Your task to perform on an android device: Add "dell xps" to the cart on bestbuy.com Image 0: 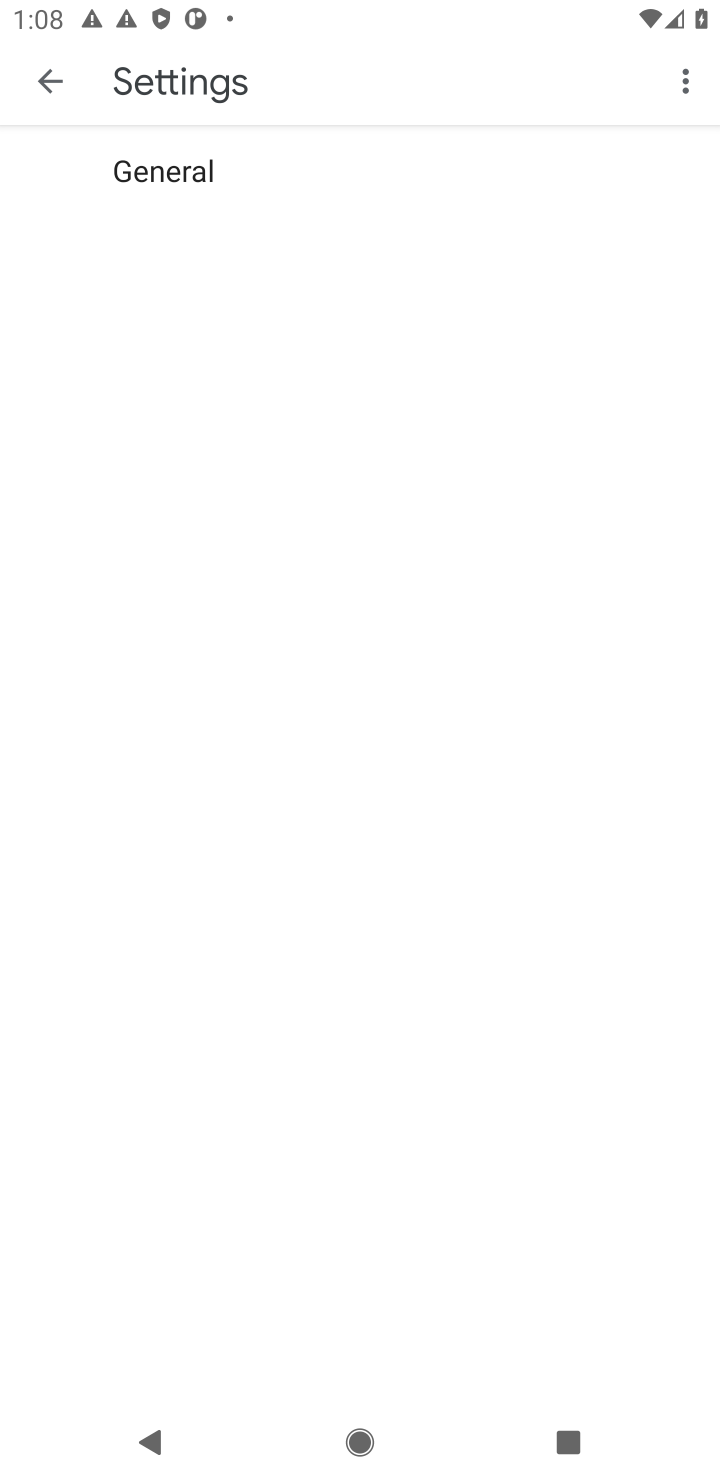
Step 0: press home button
Your task to perform on an android device: Add "dell xps" to the cart on bestbuy.com Image 1: 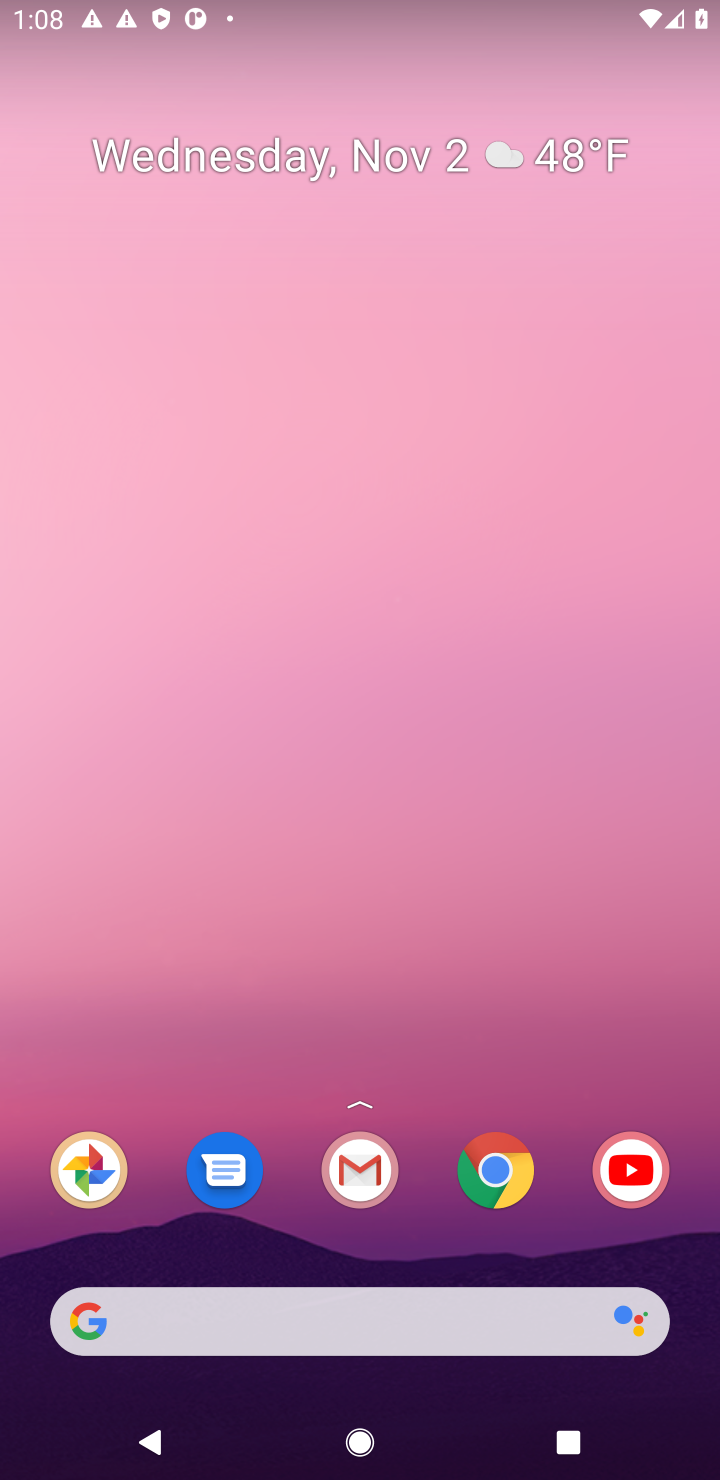
Step 1: drag from (313, 1163) to (359, 410)
Your task to perform on an android device: Add "dell xps" to the cart on bestbuy.com Image 2: 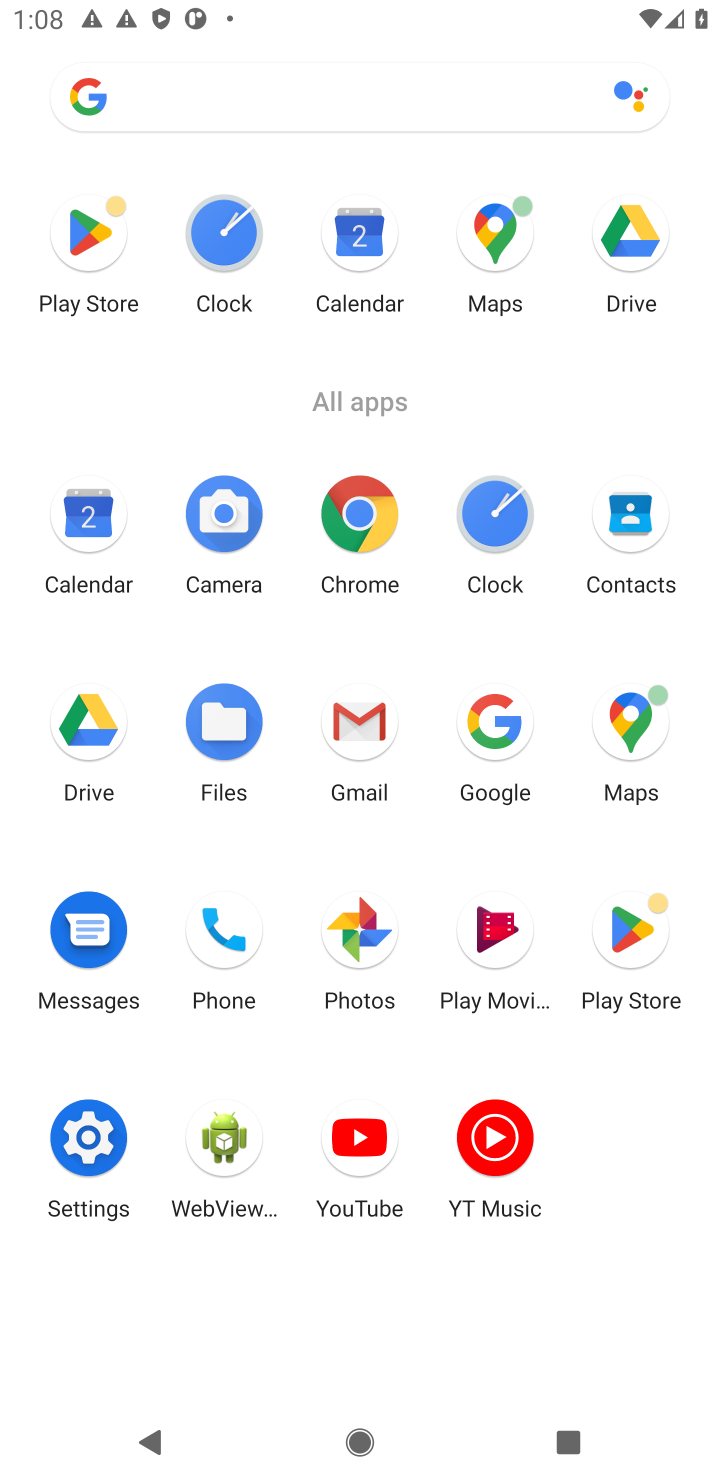
Step 2: click (480, 741)
Your task to perform on an android device: Add "dell xps" to the cart on bestbuy.com Image 3: 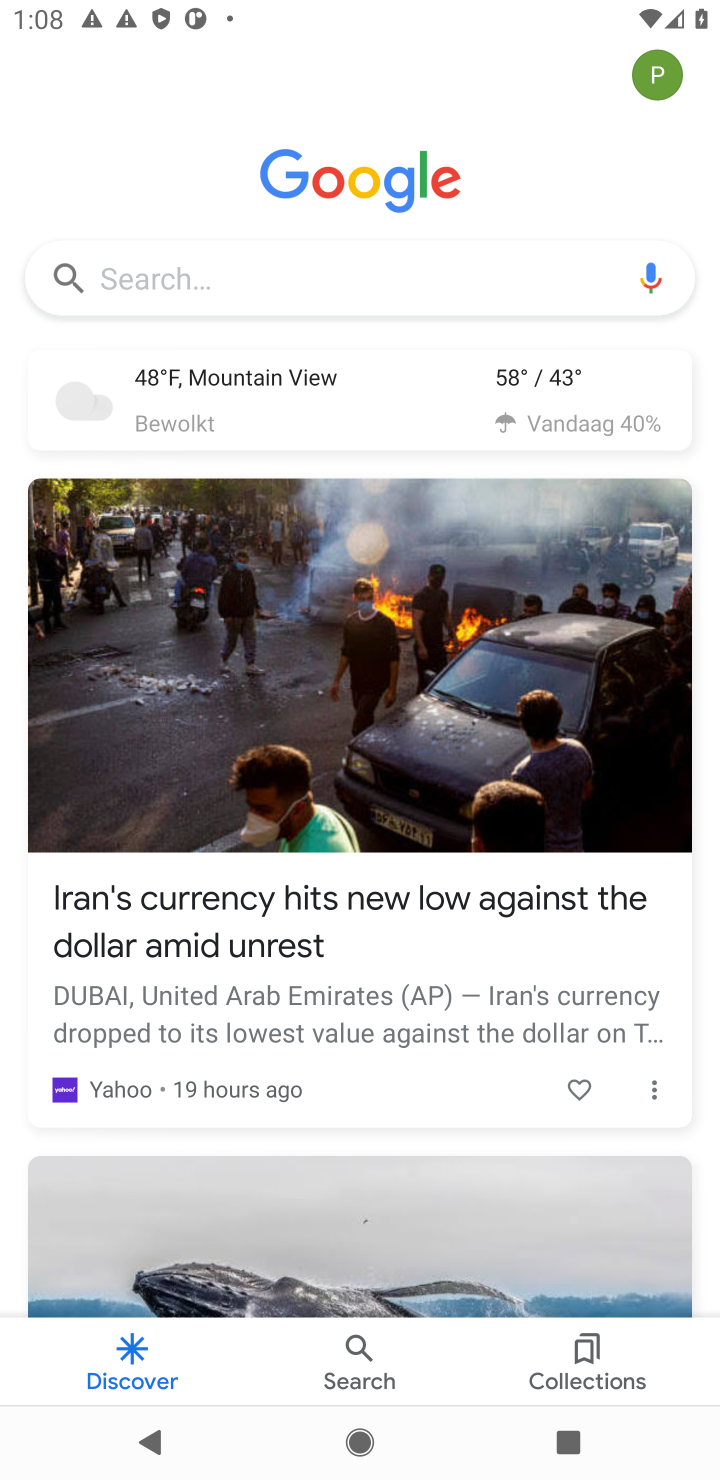
Step 3: click (401, 252)
Your task to perform on an android device: Add "dell xps" to the cart on bestbuy.com Image 4: 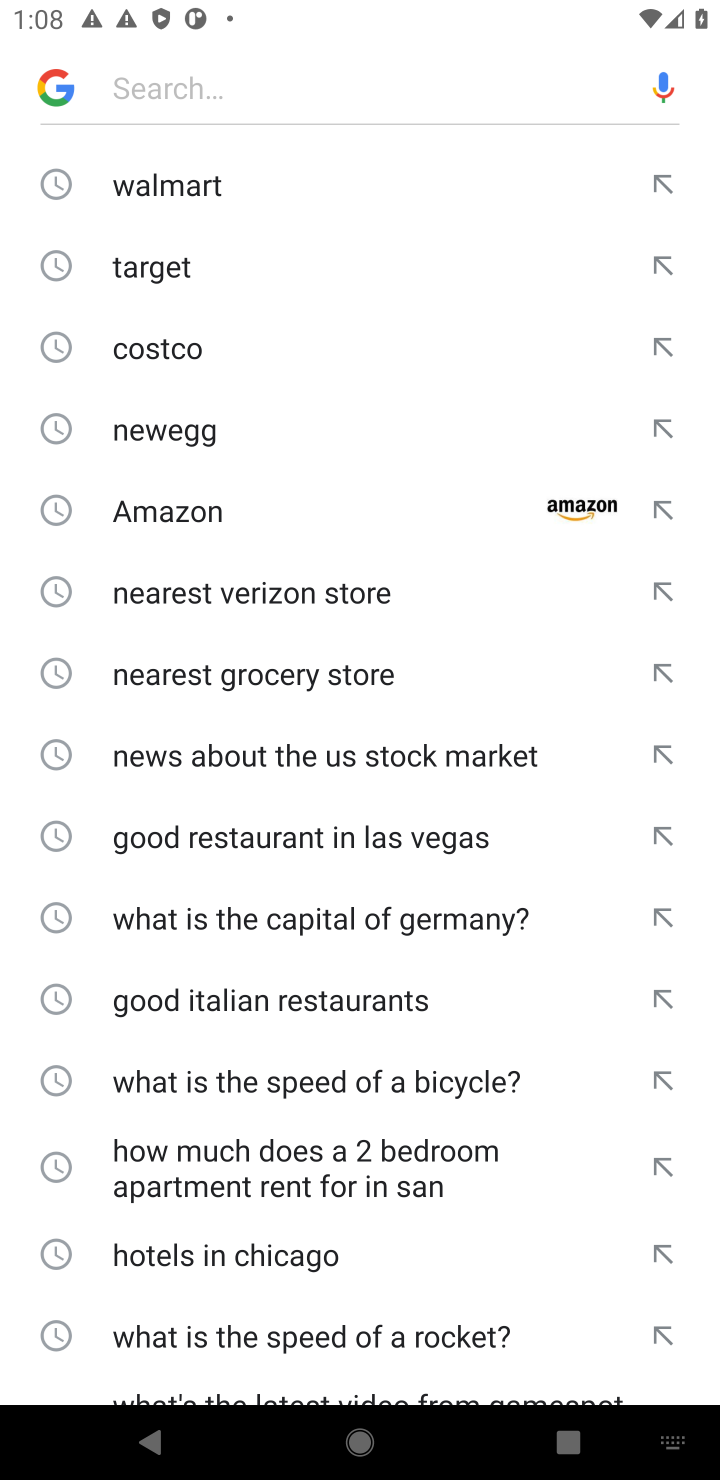
Step 4: type "bestbuy.com"
Your task to perform on an android device: Add "dell xps" to the cart on bestbuy.com Image 5: 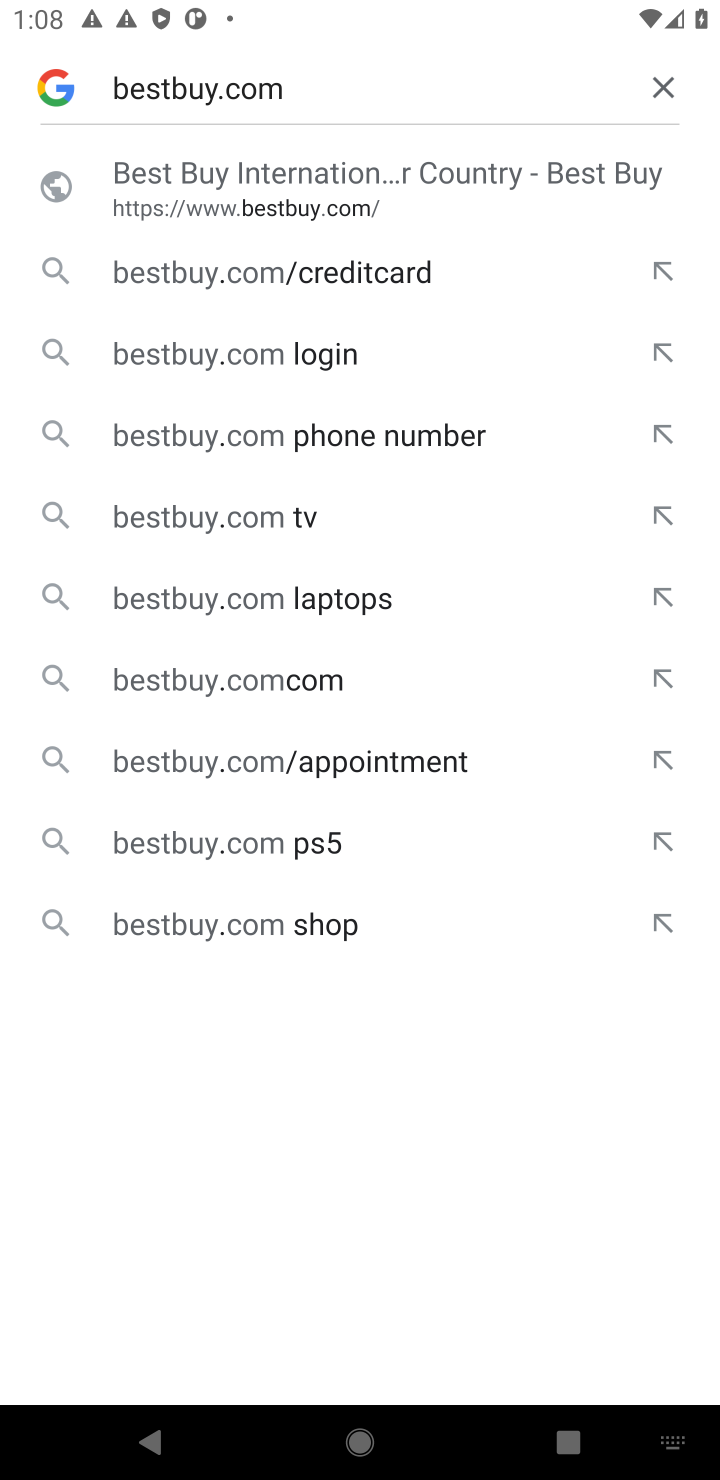
Step 5: click (310, 179)
Your task to perform on an android device: Add "dell xps" to the cart on bestbuy.com Image 6: 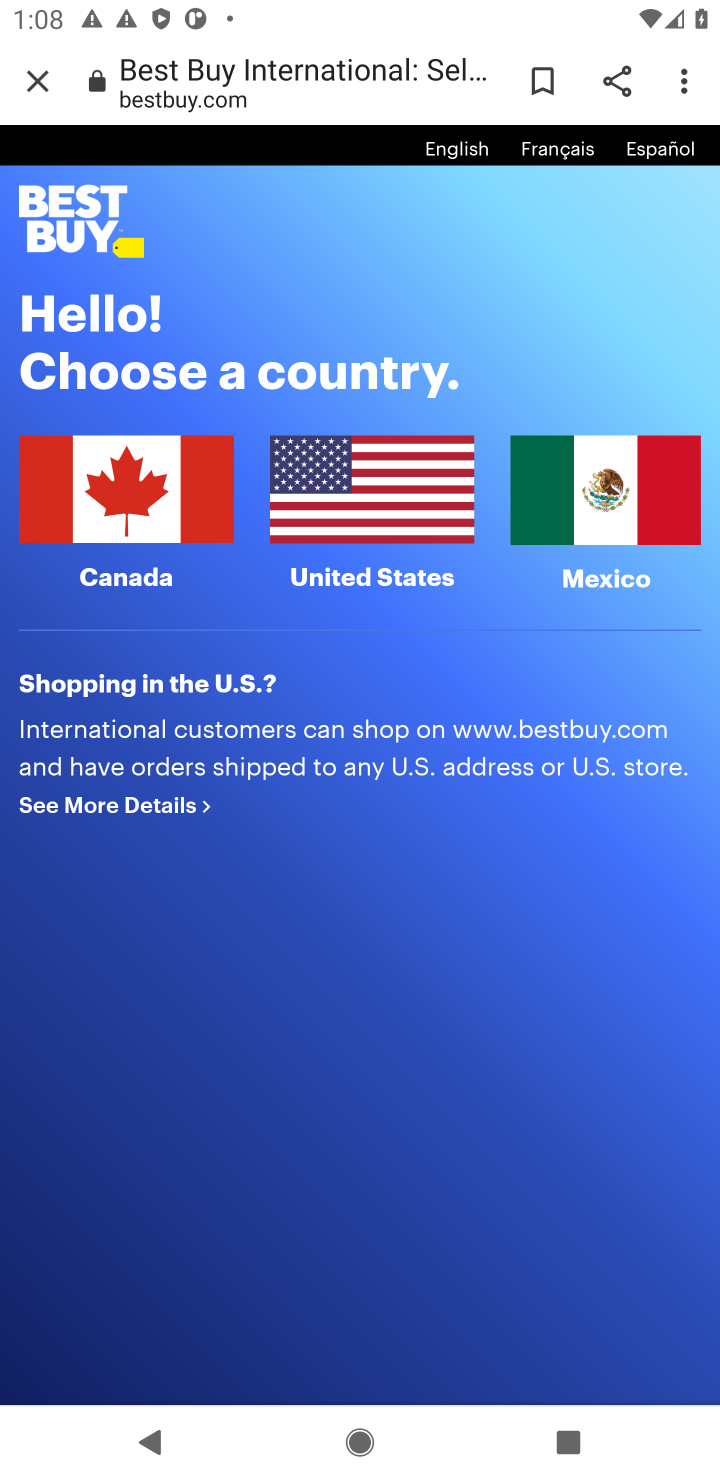
Step 6: click (370, 523)
Your task to perform on an android device: Add "dell xps" to the cart on bestbuy.com Image 7: 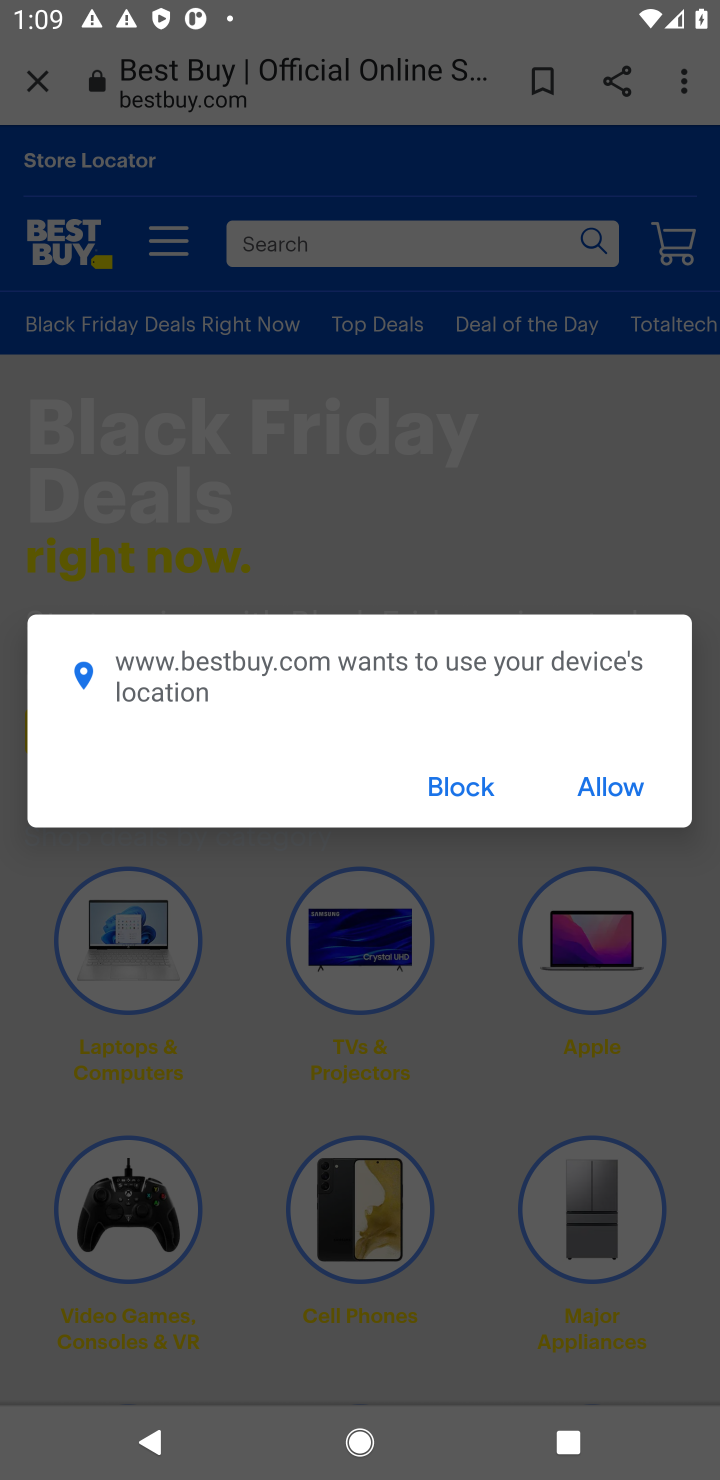
Step 7: click (460, 792)
Your task to perform on an android device: Add "dell xps" to the cart on bestbuy.com Image 8: 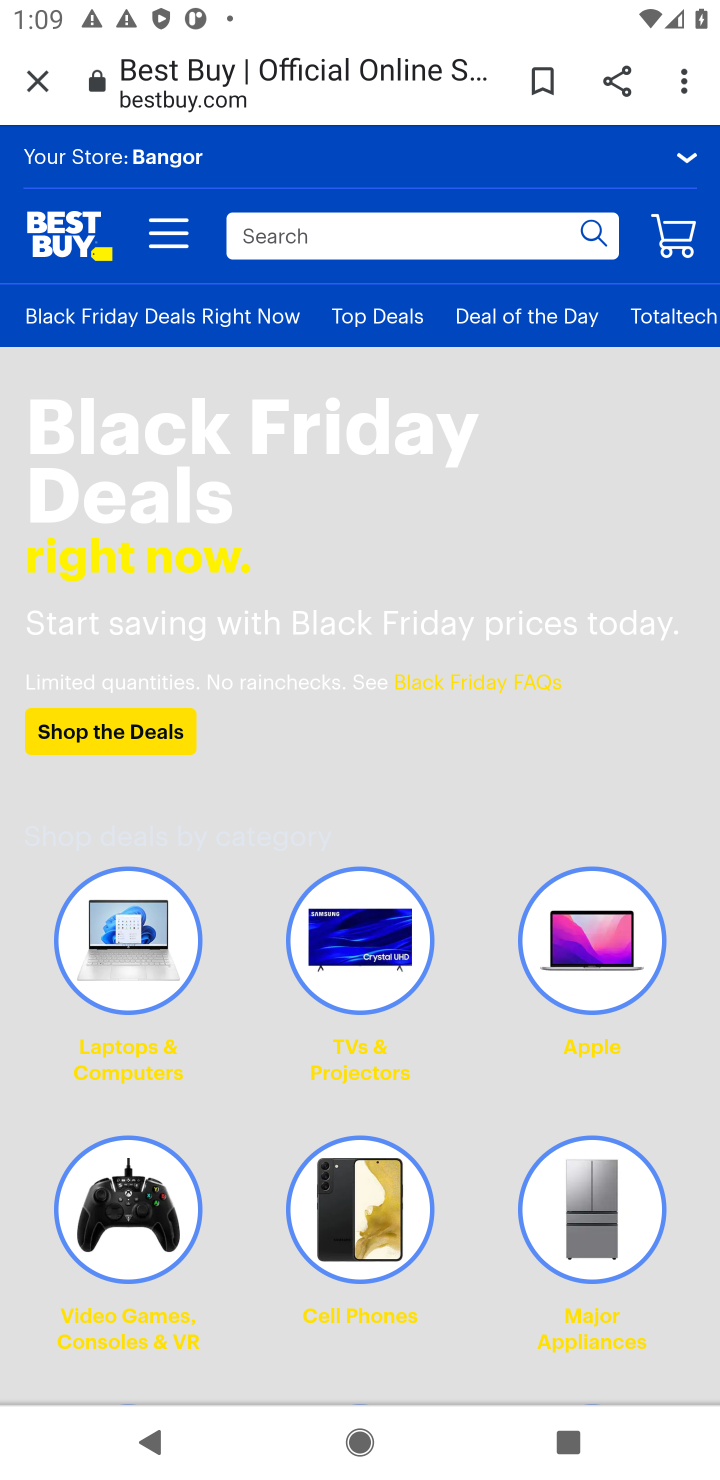
Step 8: click (379, 237)
Your task to perform on an android device: Add "dell xps" to the cart on bestbuy.com Image 9: 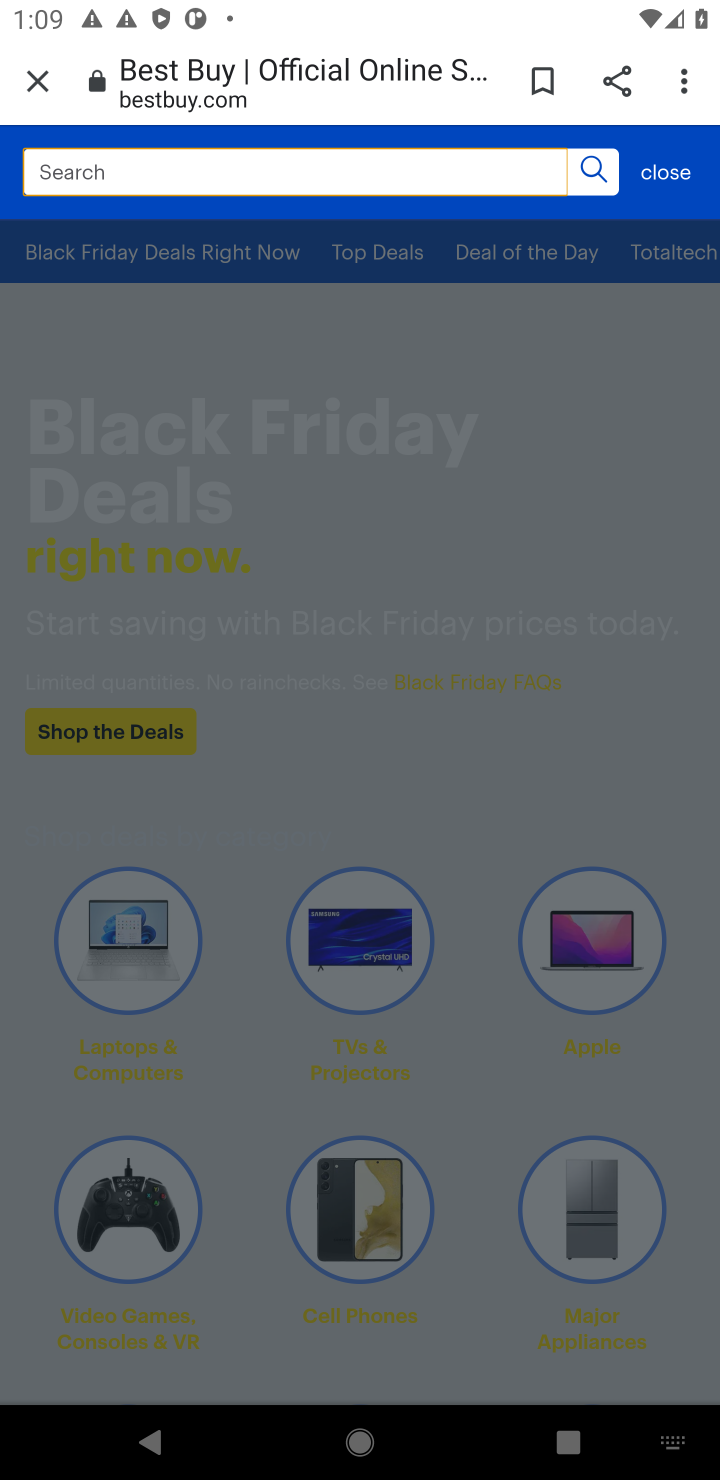
Step 9: type "dell xps"
Your task to perform on an android device: Add "dell xps" to the cart on bestbuy.com Image 10: 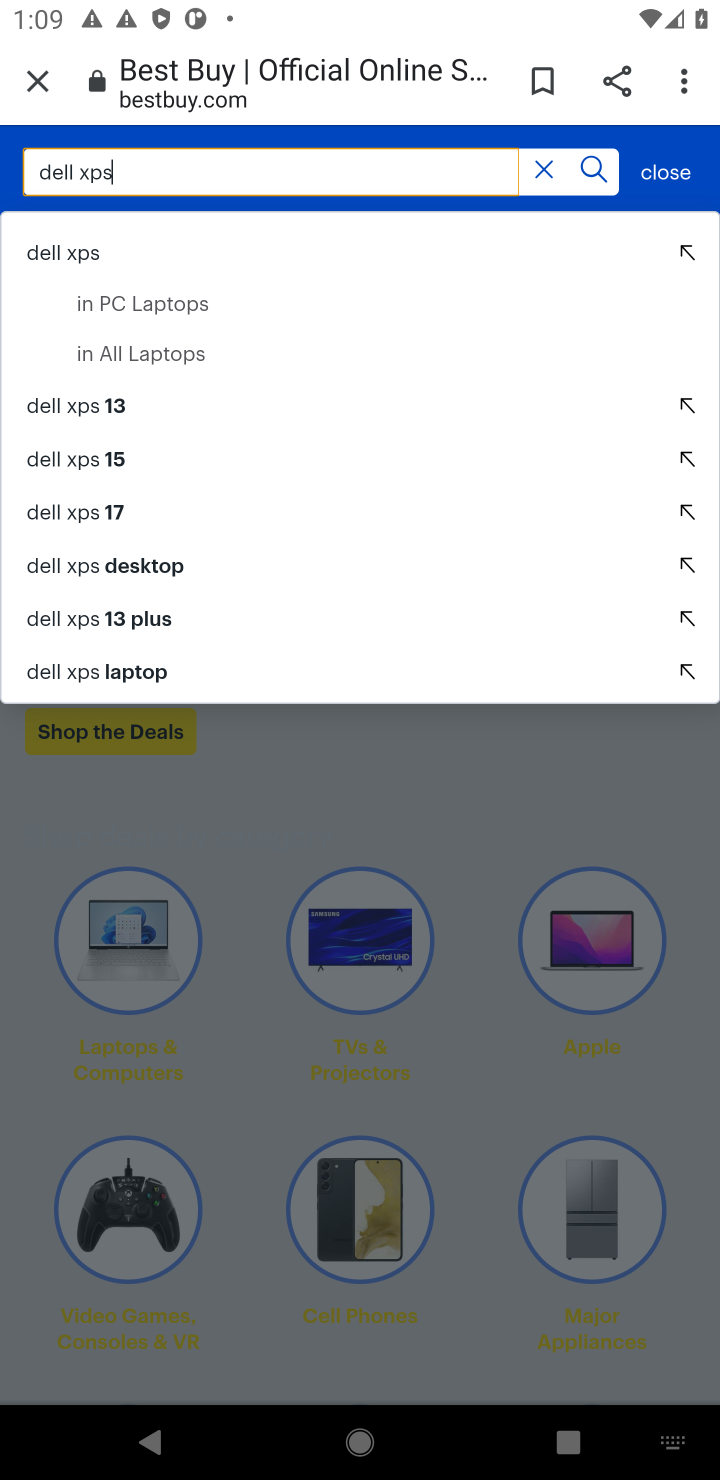
Step 10: click (435, 248)
Your task to perform on an android device: Add "dell xps" to the cart on bestbuy.com Image 11: 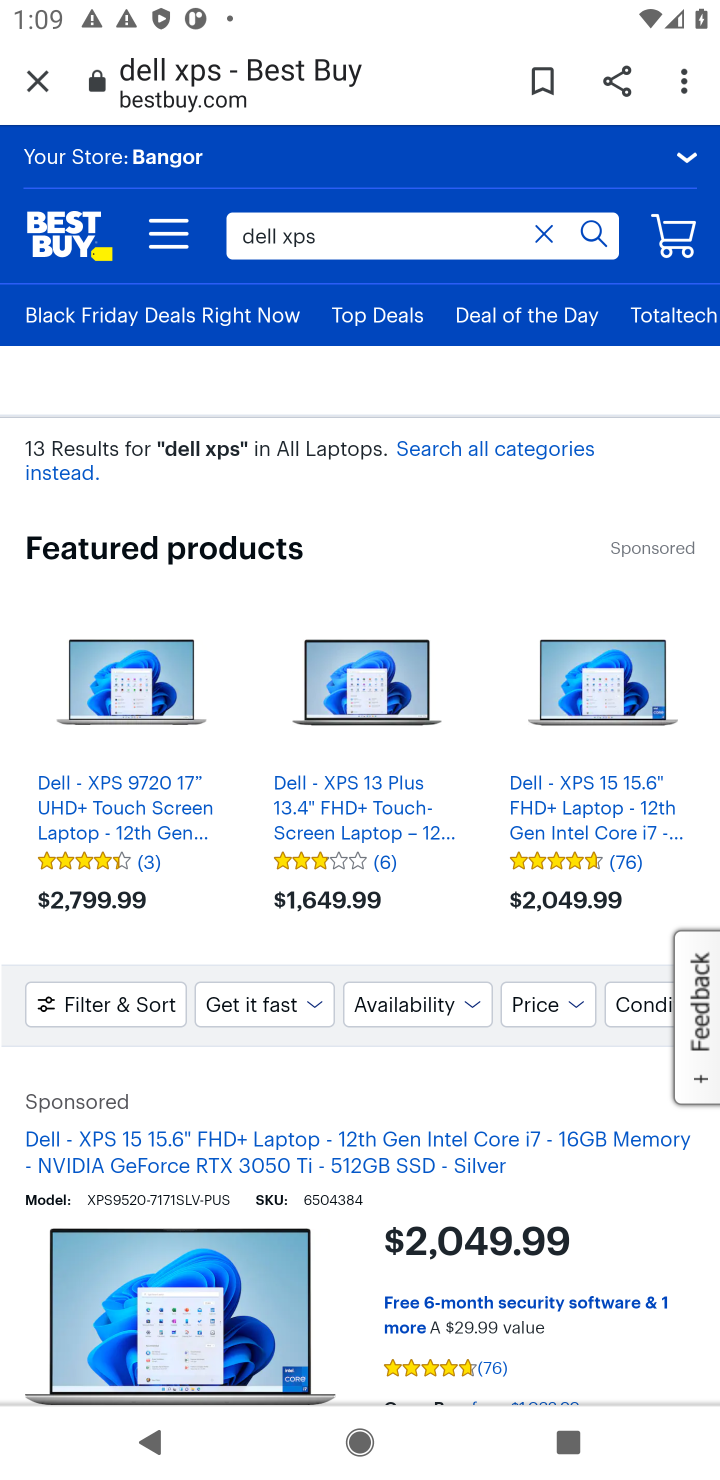
Step 11: drag from (436, 1180) to (435, 796)
Your task to perform on an android device: Add "dell xps" to the cart on bestbuy.com Image 12: 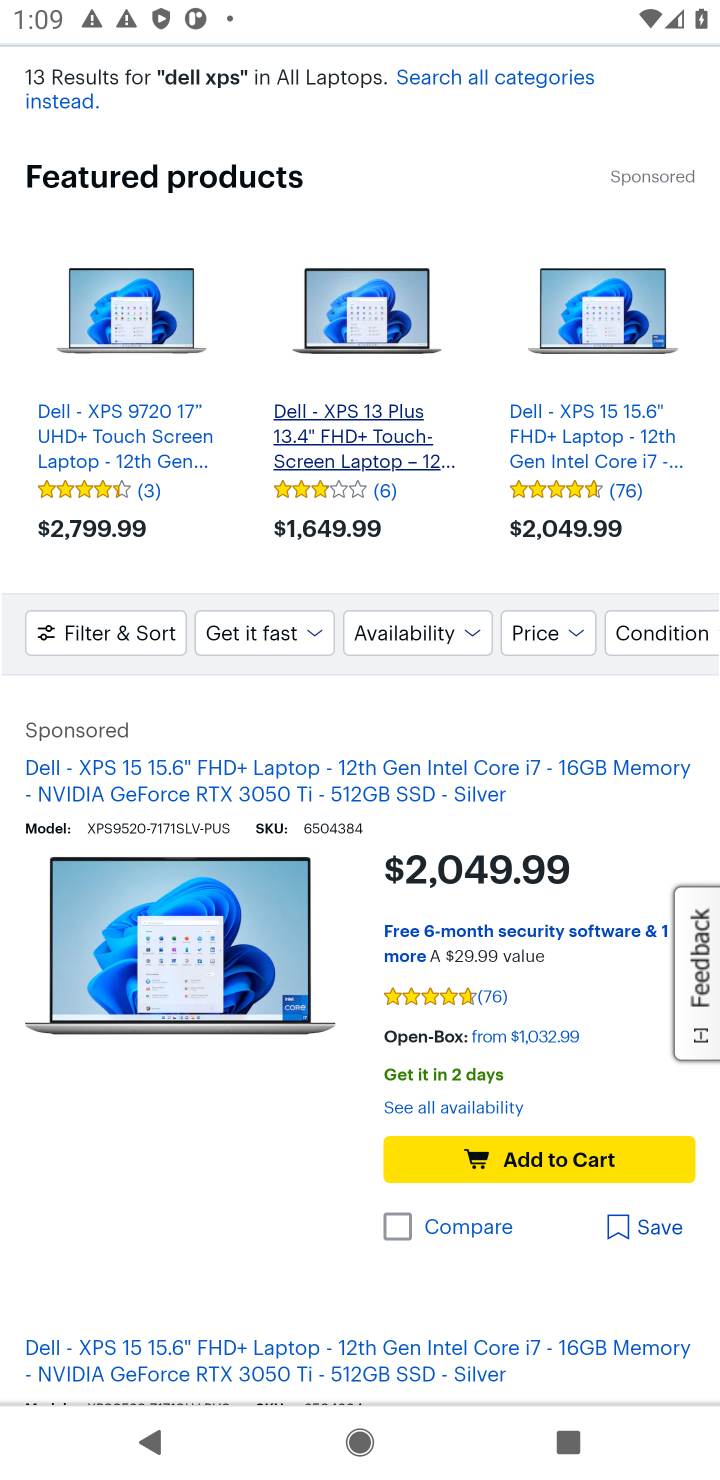
Step 12: click (574, 1158)
Your task to perform on an android device: Add "dell xps" to the cart on bestbuy.com Image 13: 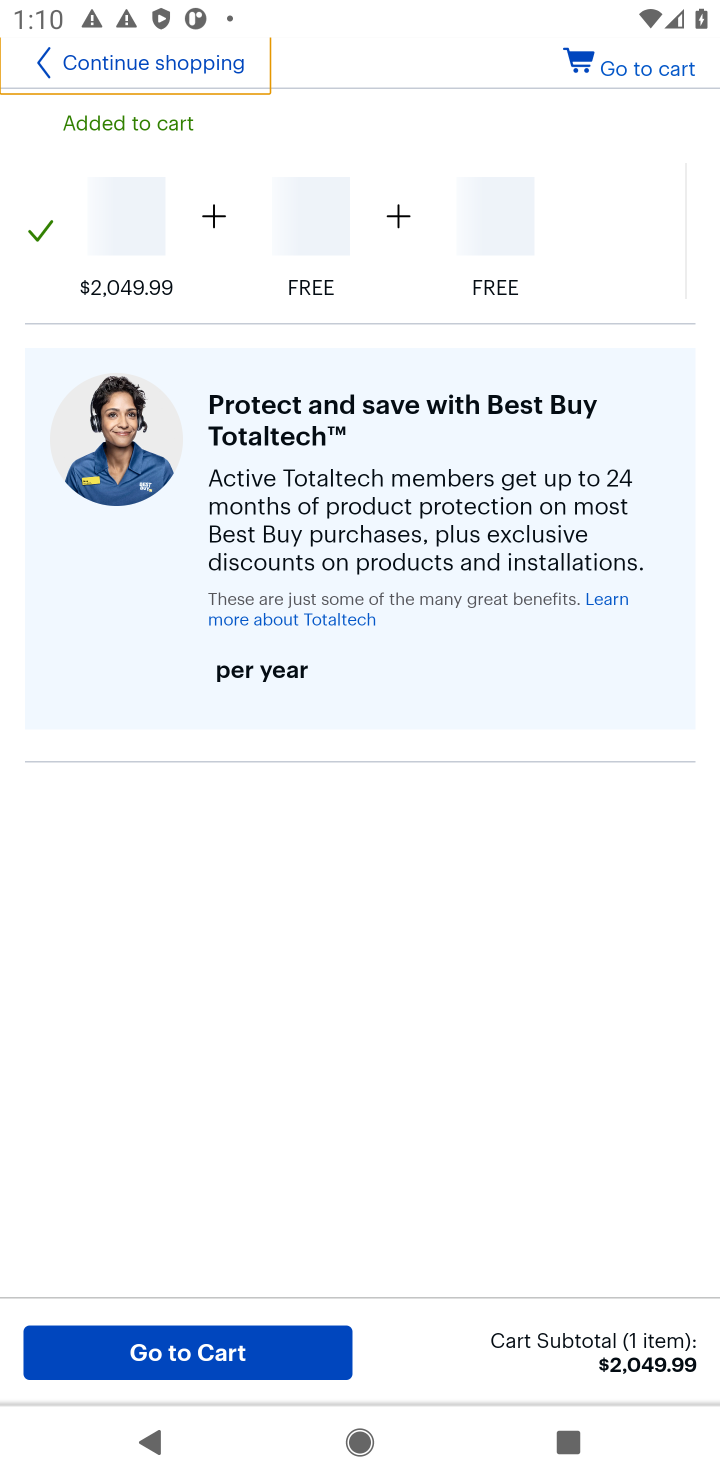
Step 13: task complete